Your task to perform on an android device: all mails in gmail Image 0: 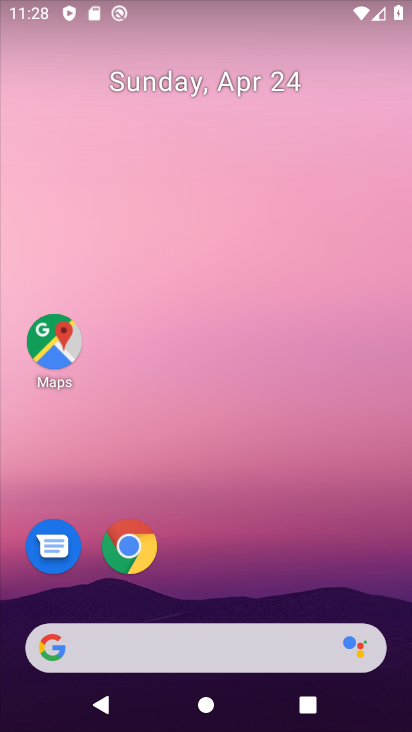
Step 0: drag from (220, 502) to (224, 166)
Your task to perform on an android device: all mails in gmail Image 1: 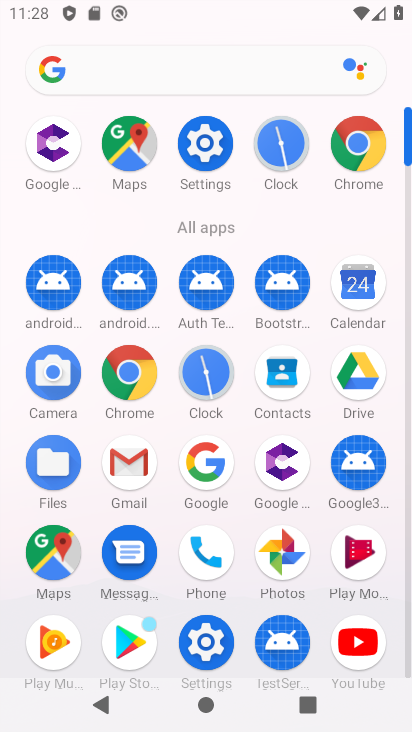
Step 1: click (114, 479)
Your task to perform on an android device: all mails in gmail Image 2: 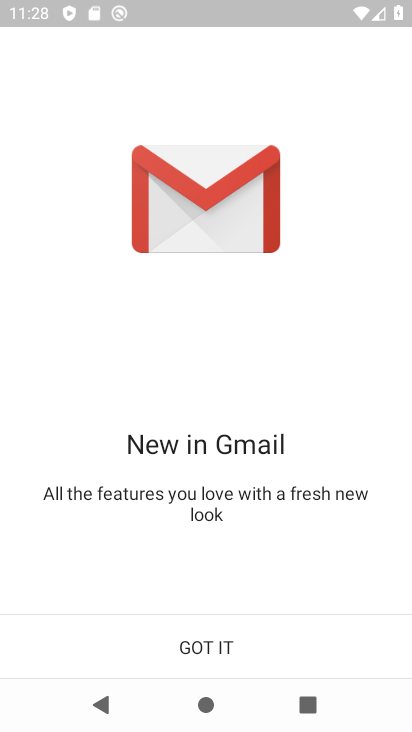
Step 2: click (237, 657)
Your task to perform on an android device: all mails in gmail Image 3: 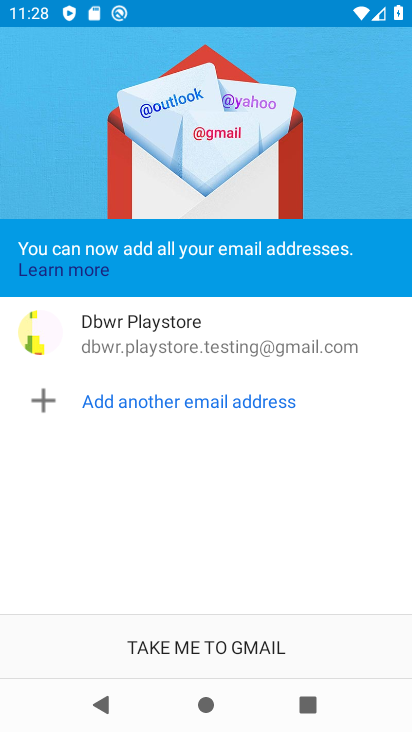
Step 3: click (210, 651)
Your task to perform on an android device: all mails in gmail Image 4: 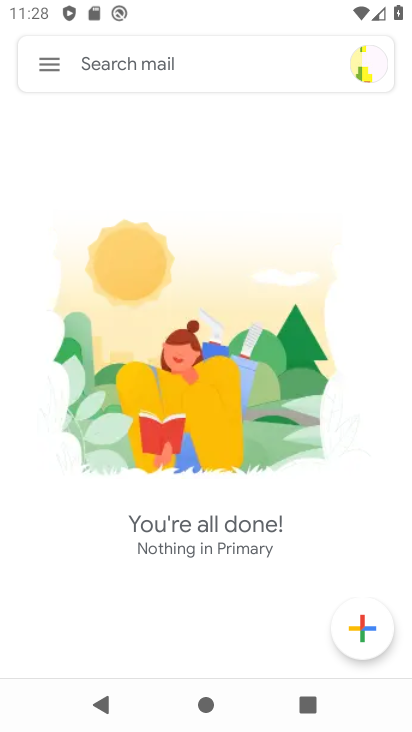
Step 4: click (50, 73)
Your task to perform on an android device: all mails in gmail Image 5: 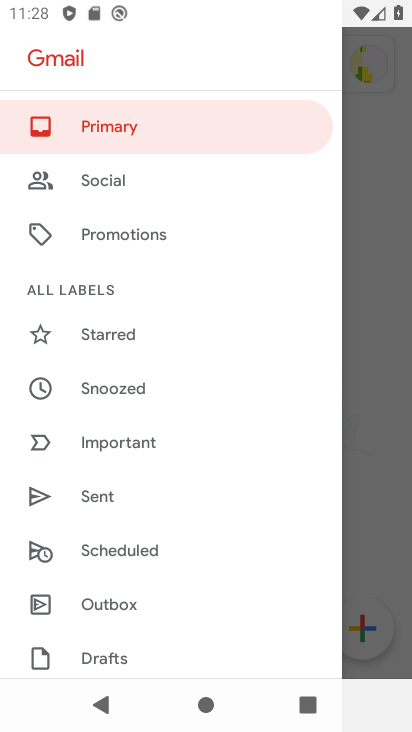
Step 5: drag from (175, 575) to (245, 202)
Your task to perform on an android device: all mails in gmail Image 6: 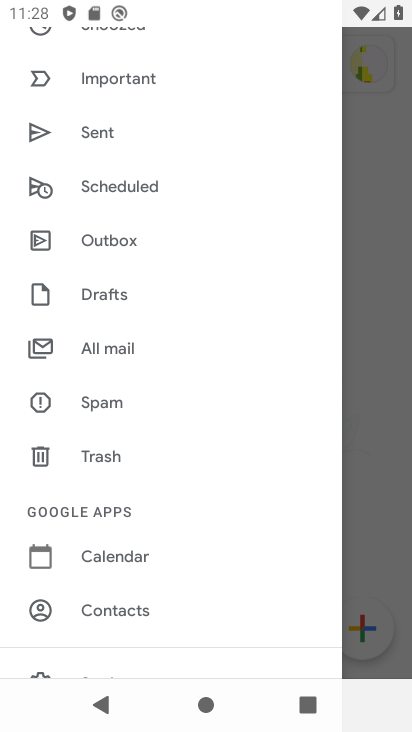
Step 6: click (109, 347)
Your task to perform on an android device: all mails in gmail Image 7: 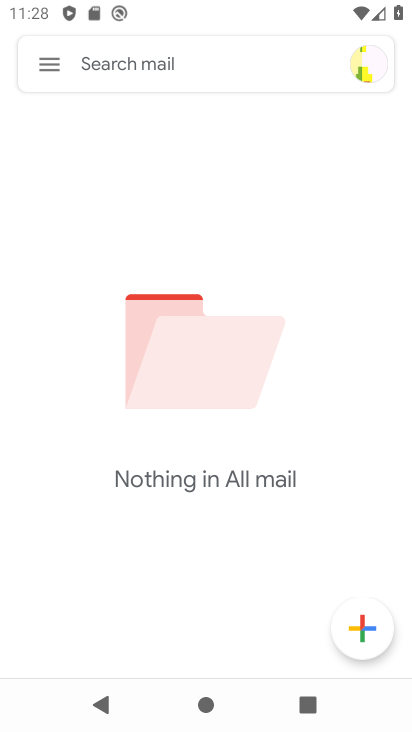
Step 7: task complete